Your task to perform on an android device: check storage Image 0: 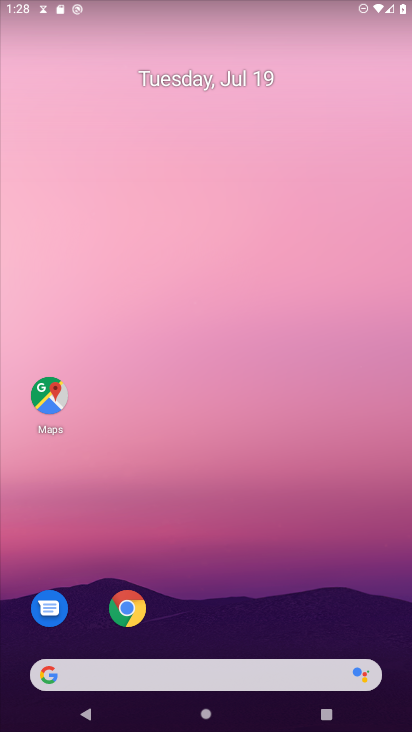
Step 0: drag from (299, 628) to (340, 1)
Your task to perform on an android device: check storage Image 1: 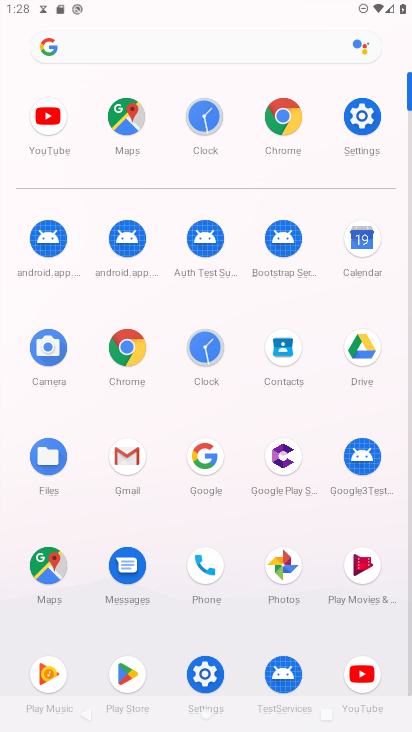
Step 1: click (358, 136)
Your task to perform on an android device: check storage Image 2: 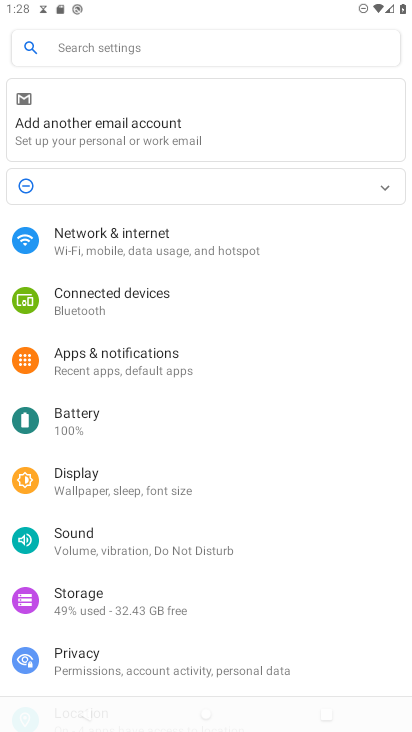
Step 2: click (164, 606)
Your task to perform on an android device: check storage Image 3: 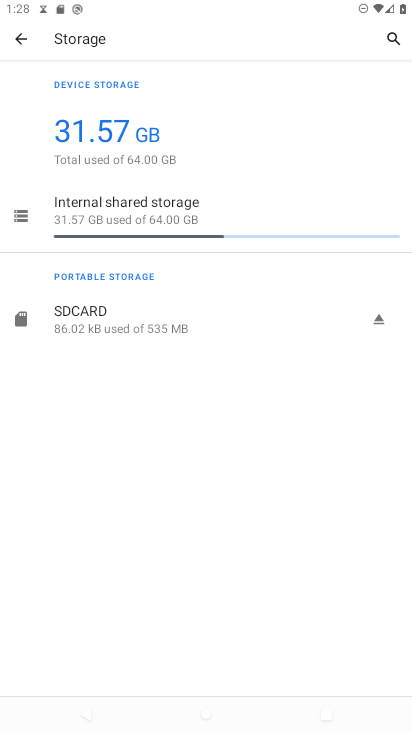
Step 3: task complete